Your task to perform on an android device: see creations saved in the google photos Image 0: 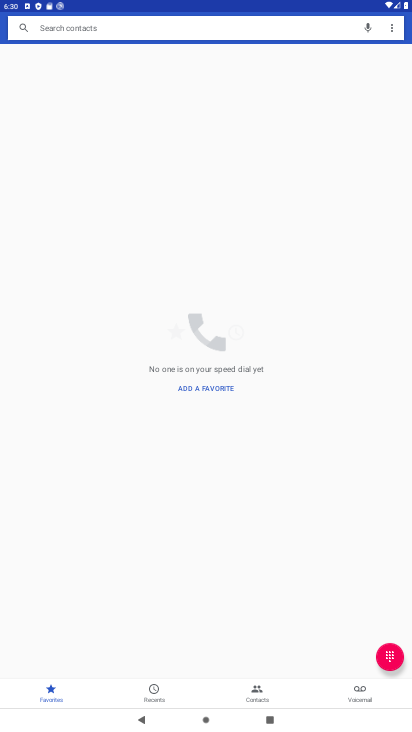
Step 0: press home button
Your task to perform on an android device: see creations saved in the google photos Image 1: 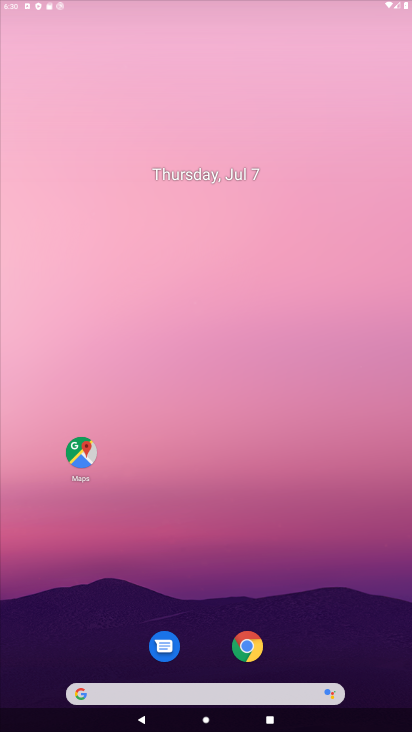
Step 1: drag from (382, 669) to (138, 31)
Your task to perform on an android device: see creations saved in the google photos Image 2: 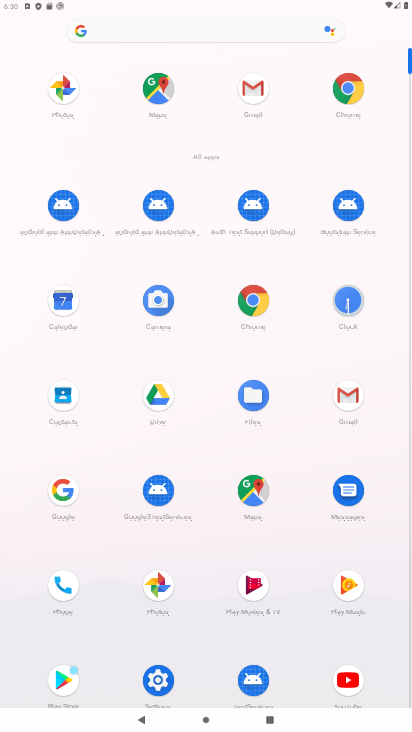
Step 2: click (155, 589)
Your task to perform on an android device: see creations saved in the google photos Image 3: 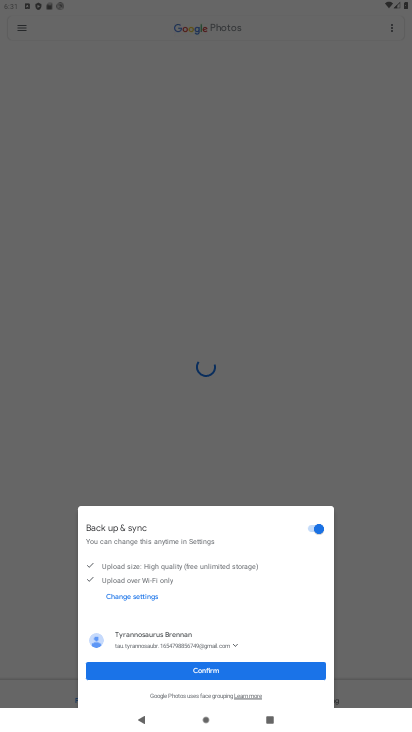
Step 3: click (179, 671)
Your task to perform on an android device: see creations saved in the google photos Image 4: 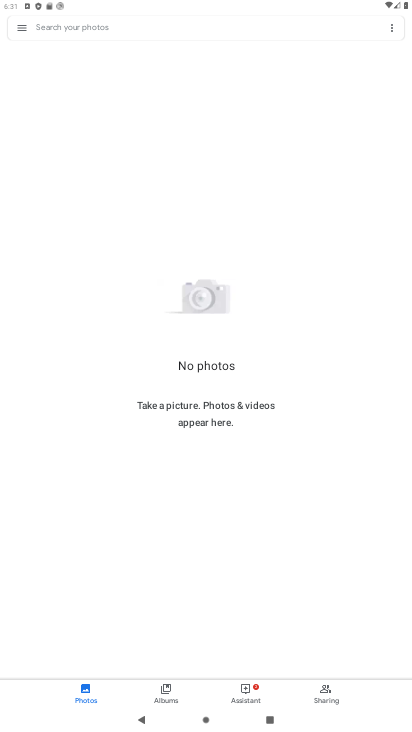
Step 4: click (111, 29)
Your task to perform on an android device: see creations saved in the google photos Image 5: 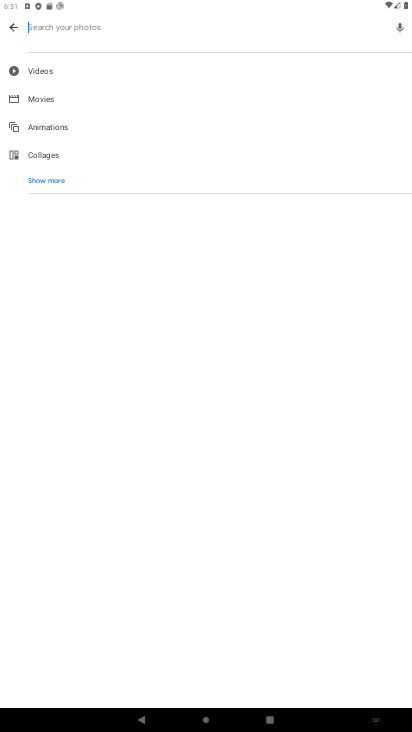
Step 5: click (42, 180)
Your task to perform on an android device: see creations saved in the google photos Image 6: 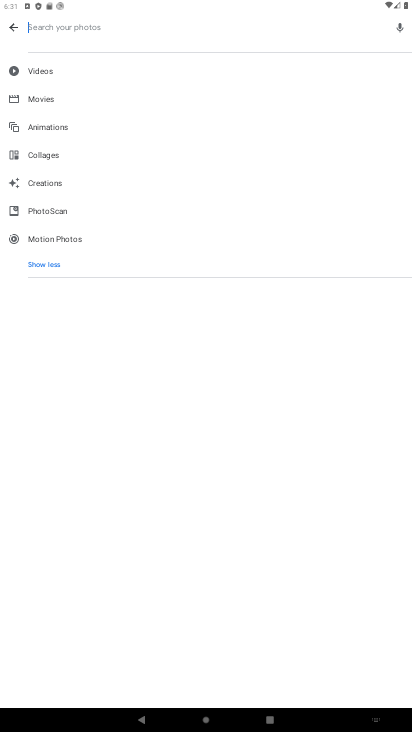
Step 6: click (42, 183)
Your task to perform on an android device: see creations saved in the google photos Image 7: 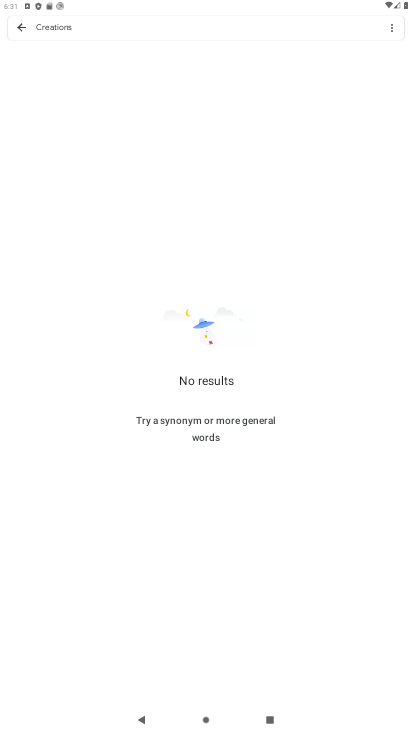
Step 7: task complete